Your task to perform on an android device: change timer sound Image 0: 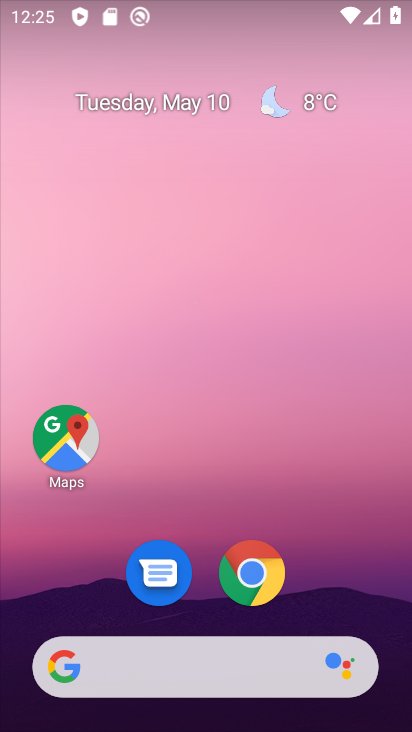
Step 0: drag from (196, 620) to (226, 63)
Your task to perform on an android device: change timer sound Image 1: 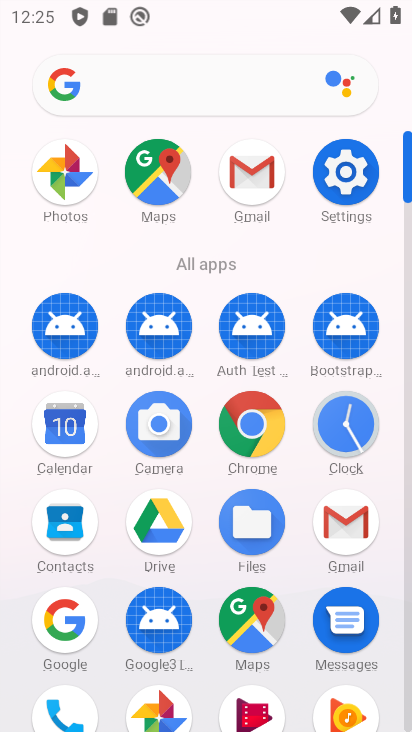
Step 1: click (325, 415)
Your task to perform on an android device: change timer sound Image 2: 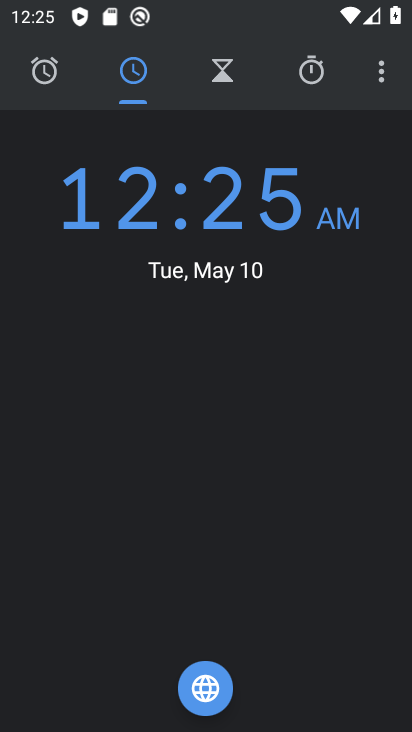
Step 2: click (382, 86)
Your task to perform on an android device: change timer sound Image 3: 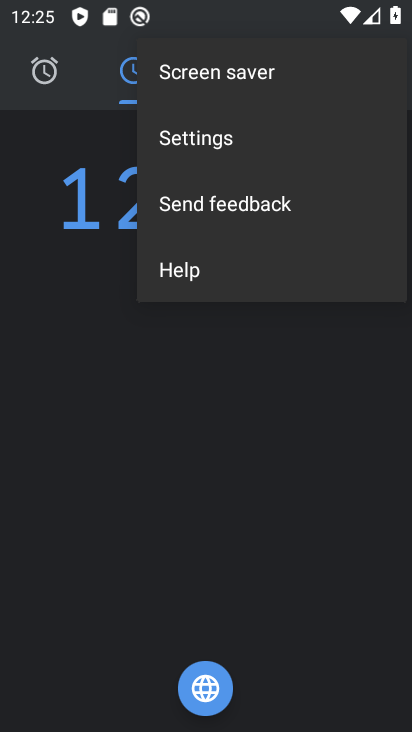
Step 3: click (217, 149)
Your task to perform on an android device: change timer sound Image 4: 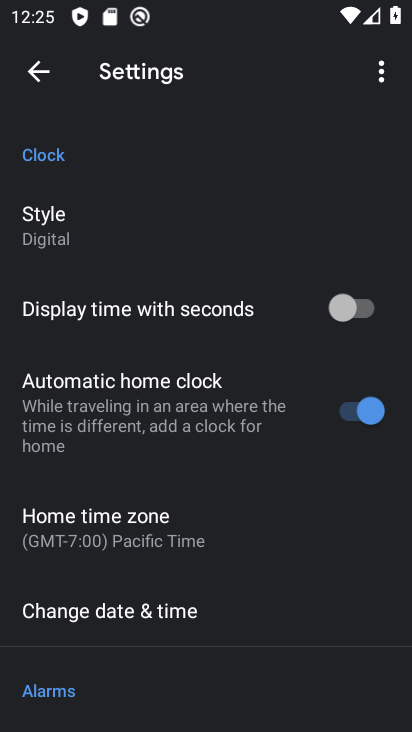
Step 4: drag from (200, 614) to (242, 346)
Your task to perform on an android device: change timer sound Image 5: 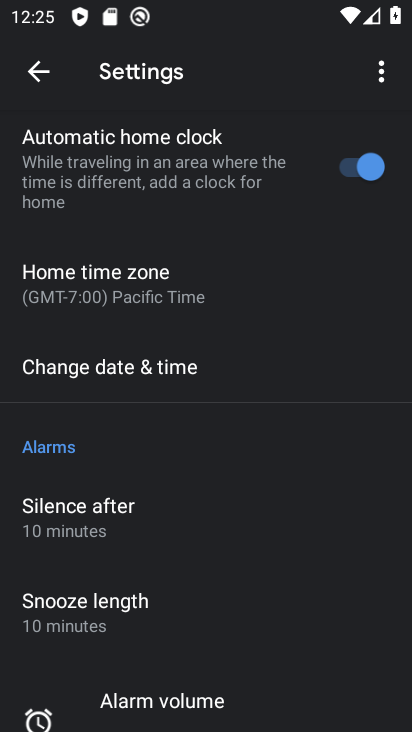
Step 5: drag from (162, 602) to (189, 355)
Your task to perform on an android device: change timer sound Image 6: 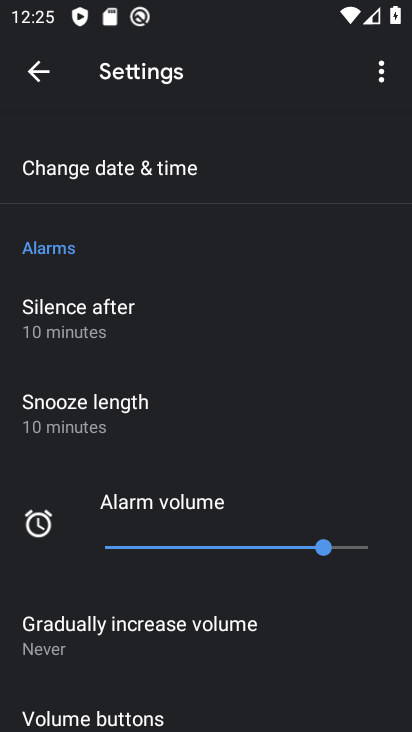
Step 6: drag from (159, 688) to (258, 173)
Your task to perform on an android device: change timer sound Image 7: 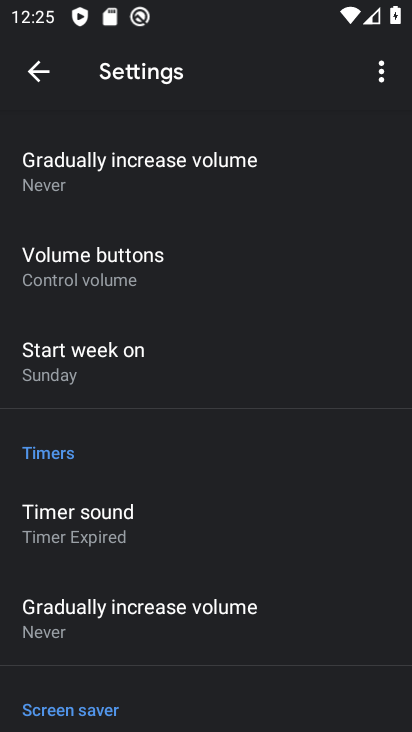
Step 7: click (152, 534)
Your task to perform on an android device: change timer sound Image 8: 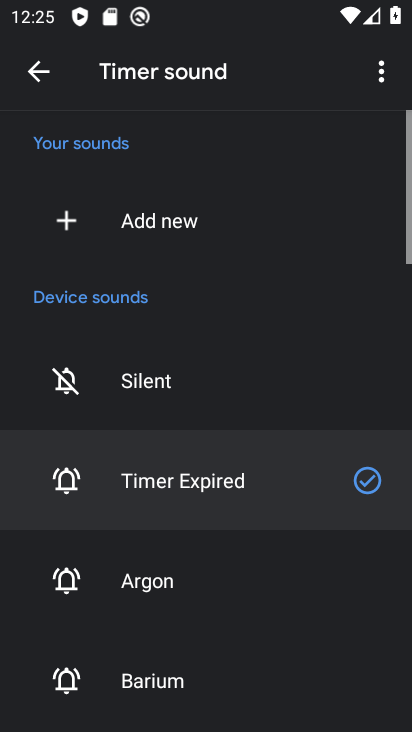
Step 8: drag from (151, 608) to (182, 438)
Your task to perform on an android device: change timer sound Image 9: 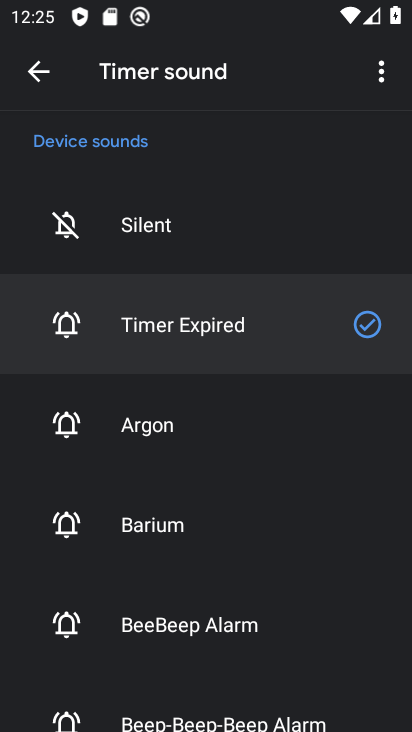
Step 9: click (135, 620)
Your task to perform on an android device: change timer sound Image 10: 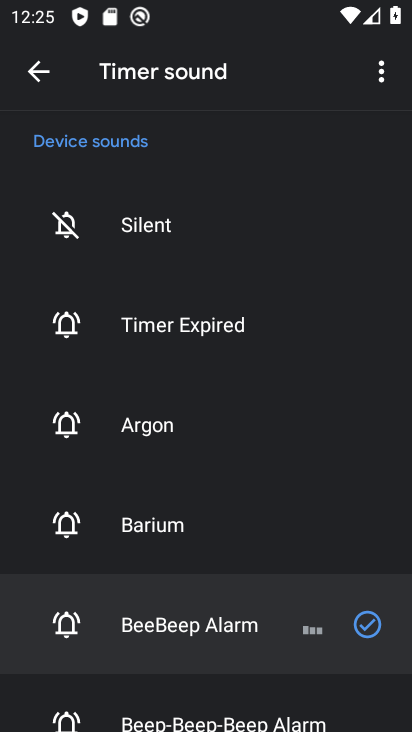
Step 10: task complete